Your task to perform on an android device: turn on improve location accuracy Image 0: 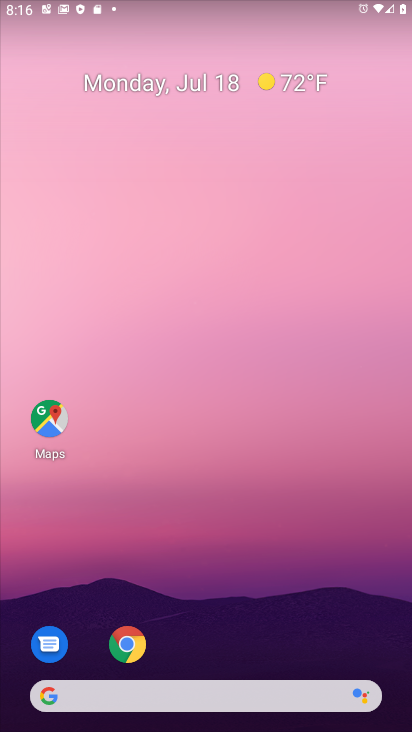
Step 0: drag from (382, 671) to (224, 59)
Your task to perform on an android device: turn on improve location accuracy Image 1: 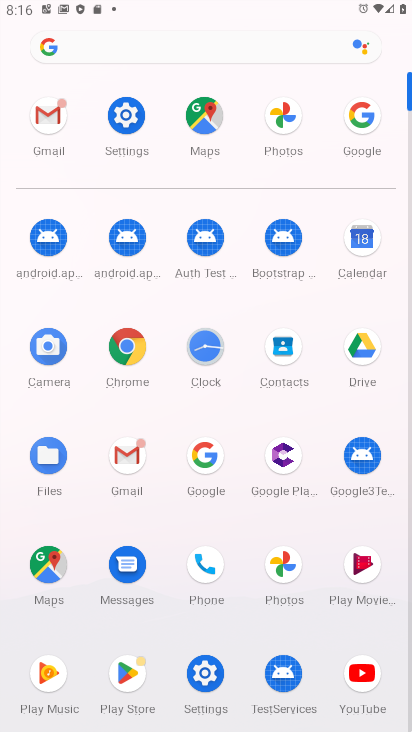
Step 1: click (210, 673)
Your task to perform on an android device: turn on improve location accuracy Image 2: 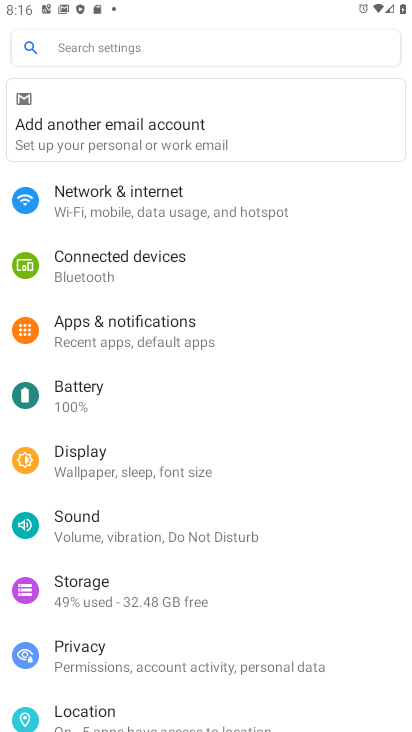
Step 2: click (116, 712)
Your task to perform on an android device: turn on improve location accuracy Image 3: 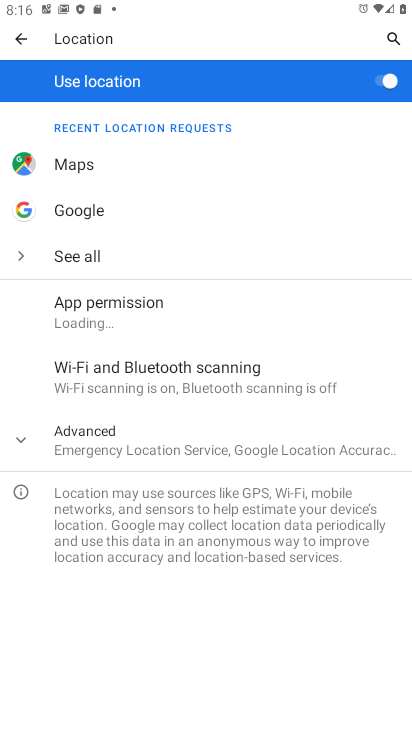
Step 3: click (143, 458)
Your task to perform on an android device: turn on improve location accuracy Image 4: 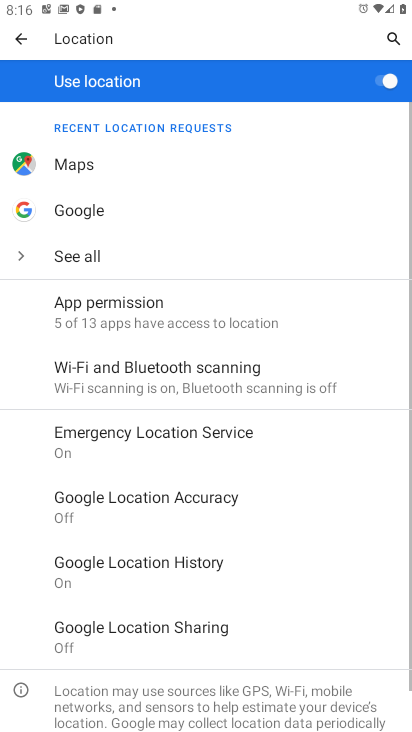
Step 4: click (154, 495)
Your task to perform on an android device: turn on improve location accuracy Image 5: 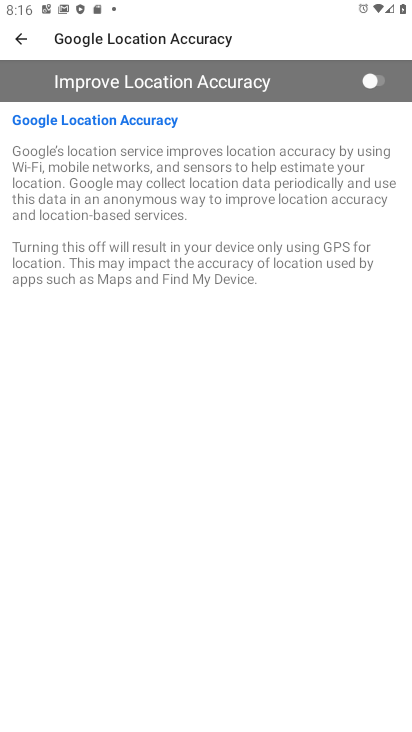
Step 5: click (377, 81)
Your task to perform on an android device: turn on improve location accuracy Image 6: 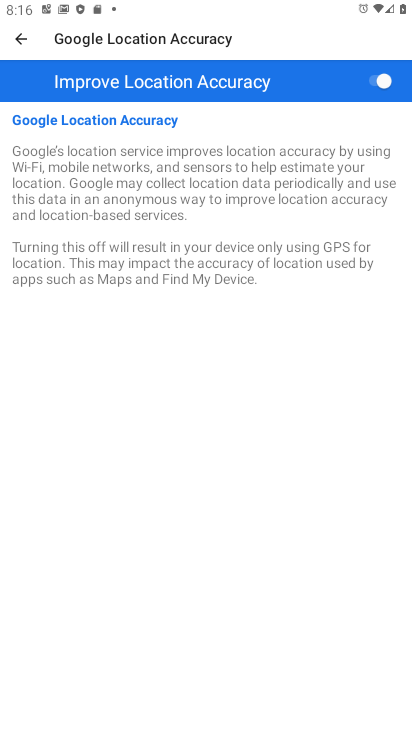
Step 6: task complete